Your task to perform on an android device: allow notifications from all sites in the chrome app Image 0: 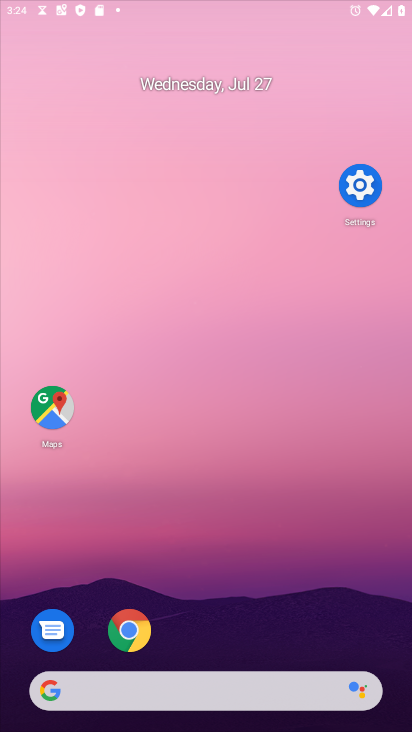
Step 0: press home button
Your task to perform on an android device: allow notifications from all sites in the chrome app Image 1: 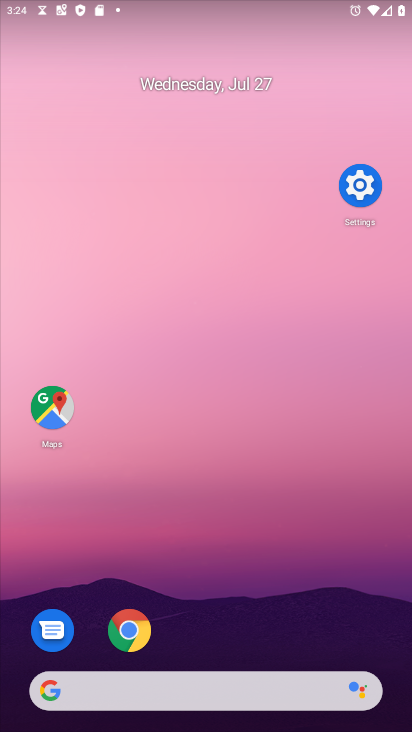
Step 1: click (133, 617)
Your task to perform on an android device: allow notifications from all sites in the chrome app Image 2: 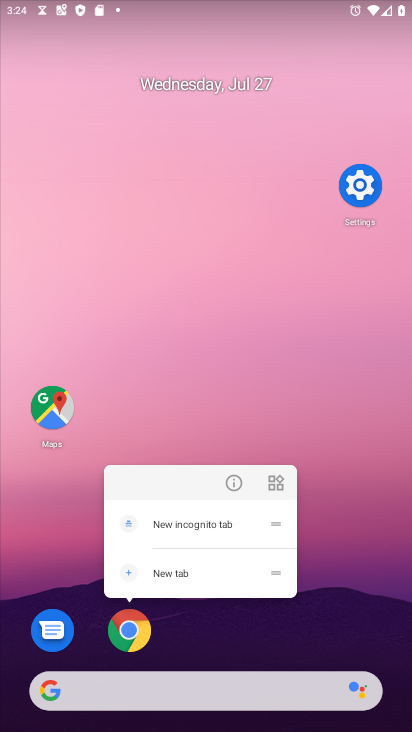
Step 2: click (133, 617)
Your task to perform on an android device: allow notifications from all sites in the chrome app Image 3: 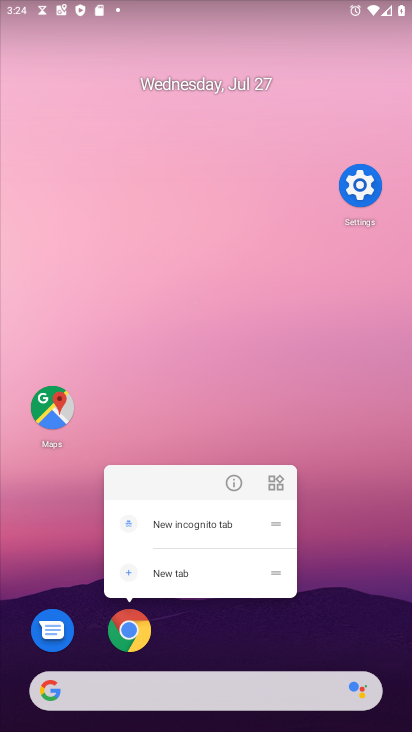
Step 3: click (133, 617)
Your task to perform on an android device: allow notifications from all sites in the chrome app Image 4: 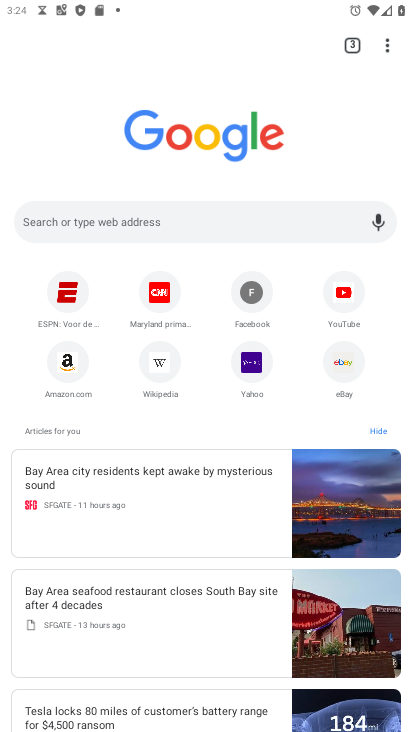
Step 4: drag from (384, 44) to (200, 423)
Your task to perform on an android device: allow notifications from all sites in the chrome app Image 5: 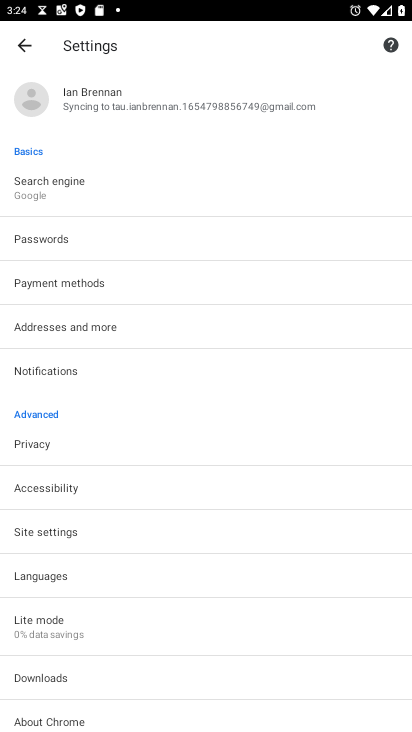
Step 5: click (37, 531)
Your task to perform on an android device: allow notifications from all sites in the chrome app Image 6: 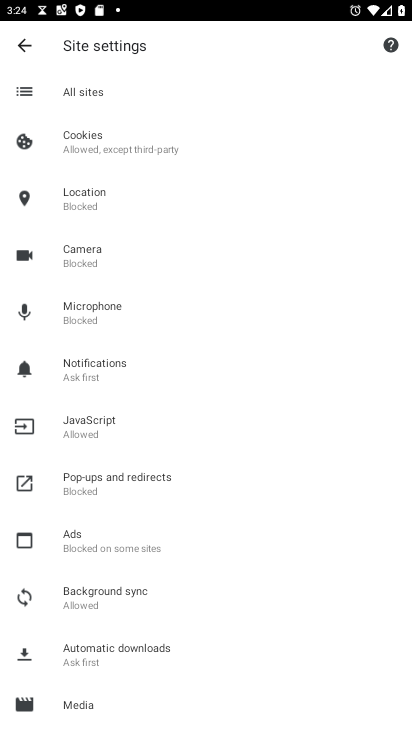
Step 6: click (97, 364)
Your task to perform on an android device: allow notifications from all sites in the chrome app Image 7: 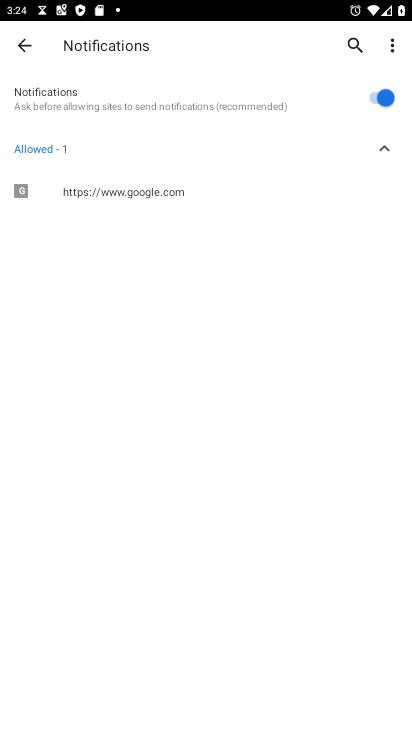
Step 7: task complete